Your task to perform on an android device: Go to Yahoo.com Image 0: 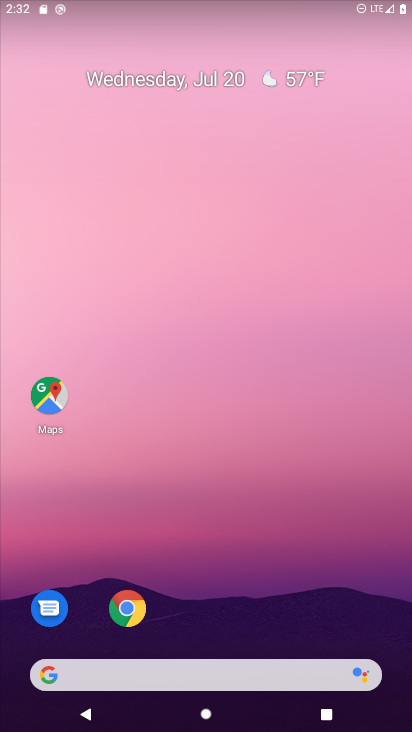
Step 0: click (130, 608)
Your task to perform on an android device: Go to Yahoo.com Image 1: 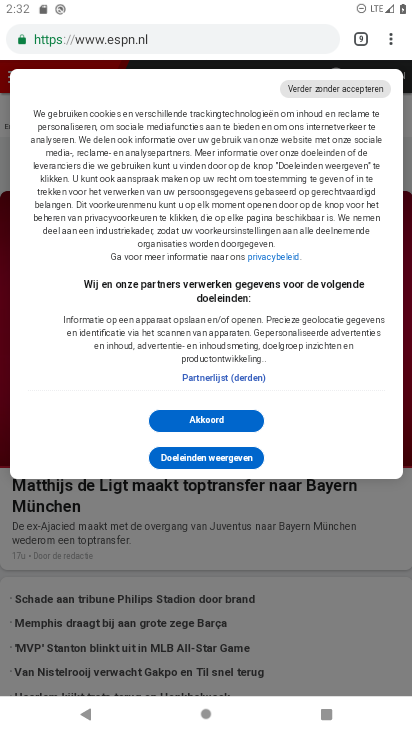
Step 1: click (393, 41)
Your task to perform on an android device: Go to Yahoo.com Image 2: 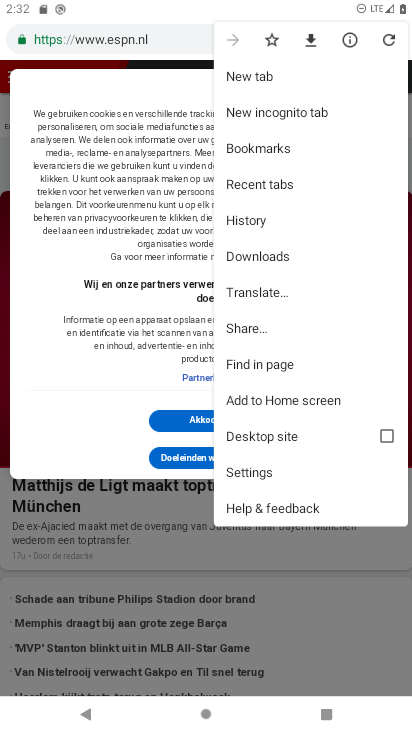
Step 2: click (259, 74)
Your task to perform on an android device: Go to Yahoo.com Image 3: 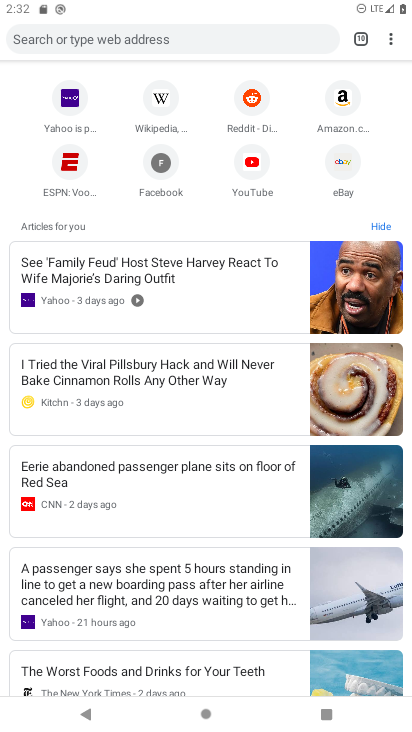
Step 3: click (70, 91)
Your task to perform on an android device: Go to Yahoo.com Image 4: 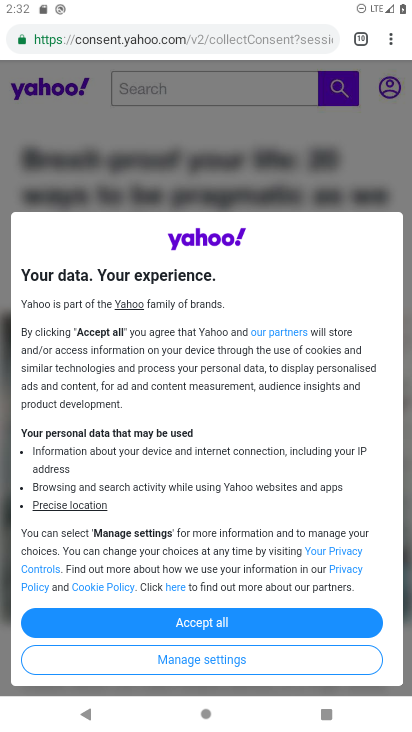
Step 4: click (192, 624)
Your task to perform on an android device: Go to Yahoo.com Image 5: 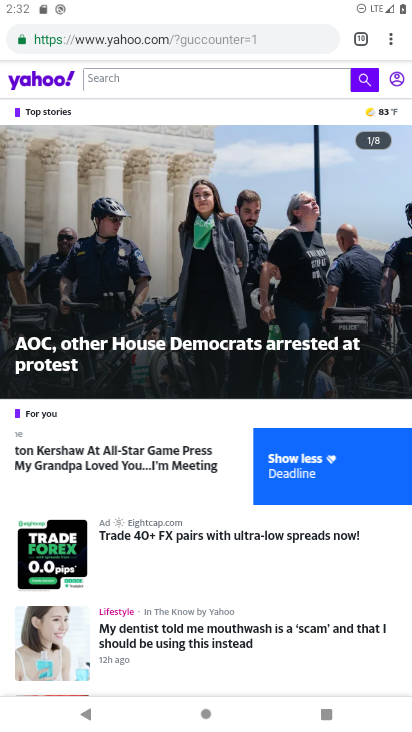
Step 5: task complete